Your task to perform on an android device: read, delete, or share a saved page in the chrome app Image 0: 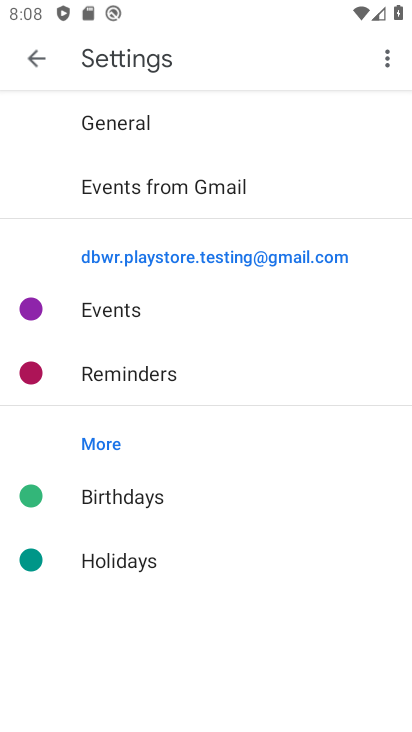
Step 0: press home button
Your task to perform on an android device: read, delete, or share a saved page in the chrome app Image 1: 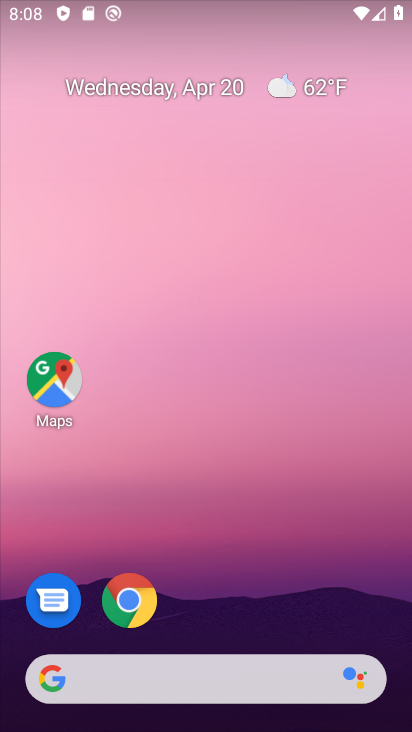
Step 1: drag from (211, 709) to (206, 102)
Your task to perform on an android device: read, delete, or share a saved page in the chrome app Image 2: 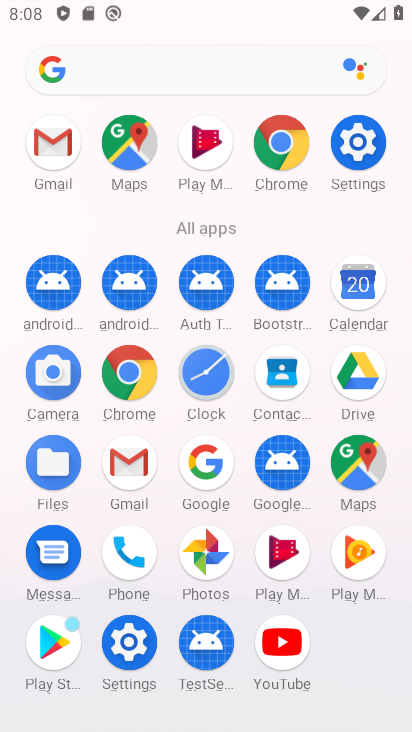
Step 2: click (285, 143)
Your task to perform on an android device: read, delete, or share a saved page in the chrome app Image 3: 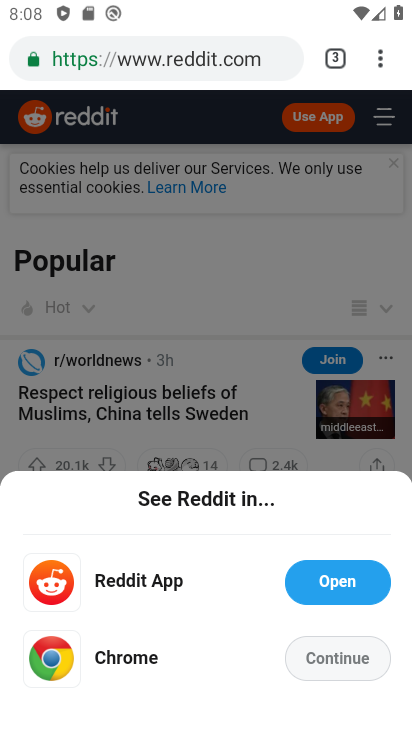
Step 3: click (379, 64)
Your task to perform on an android device: read, delete, or share a saved page in the chrome app Image 4: 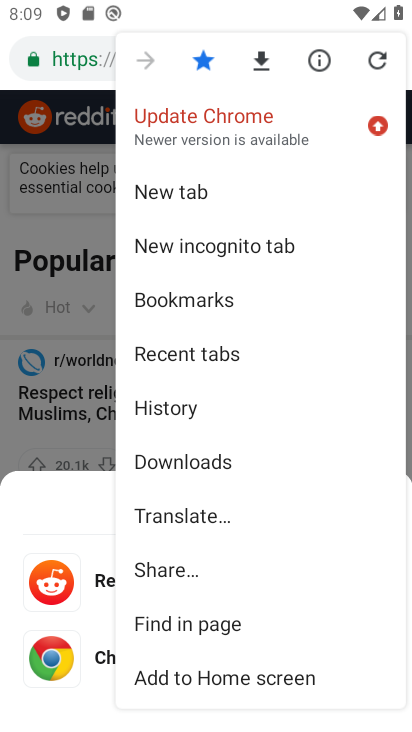
Step 4: click (175, 460)
Your task to perform on an android device: read, delete, or share a saved page in the chrome app Image 5: 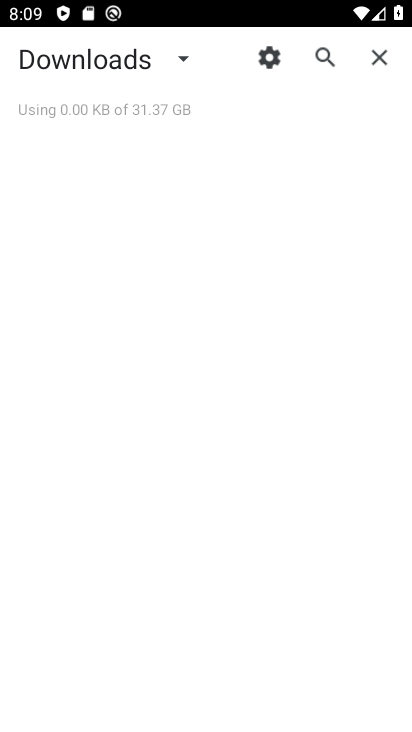
Step 5: click (182, 57)
Your task to perform on an android device: read, delete, or share a saved page in the chrome app Image 6: 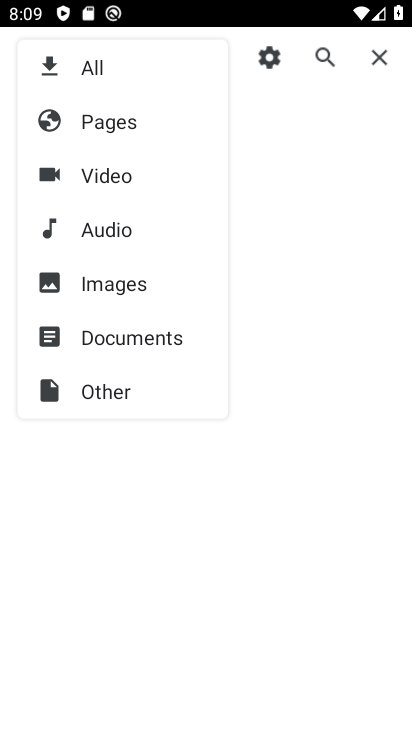
Step 6: click (108, 122)
Your task to perform on an android device: read, delete, or share a saved page in the chrome app Image 7: 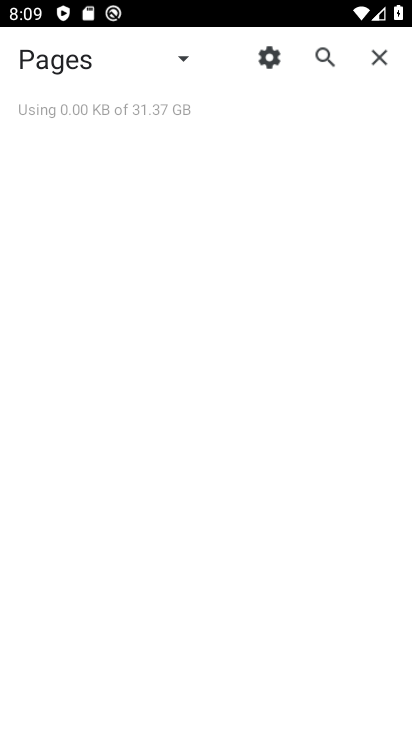
Step 7: task complete